Your task to perform on an android device: turn on data saver in the chrome app Image 0: 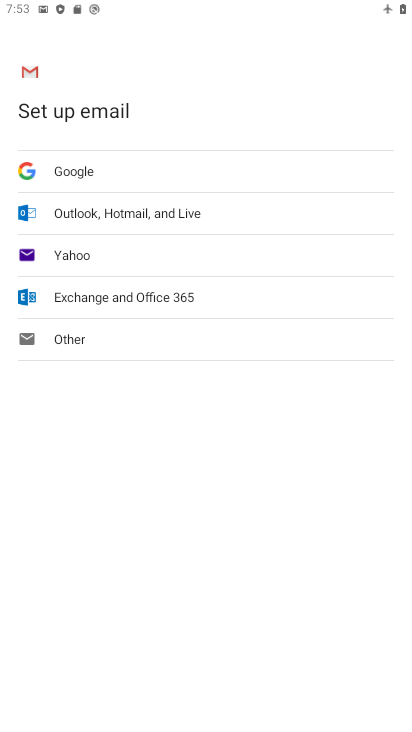
Step 0: press home button
Your task to perform on an android device: turn on data saver in the chrome app Image 1: 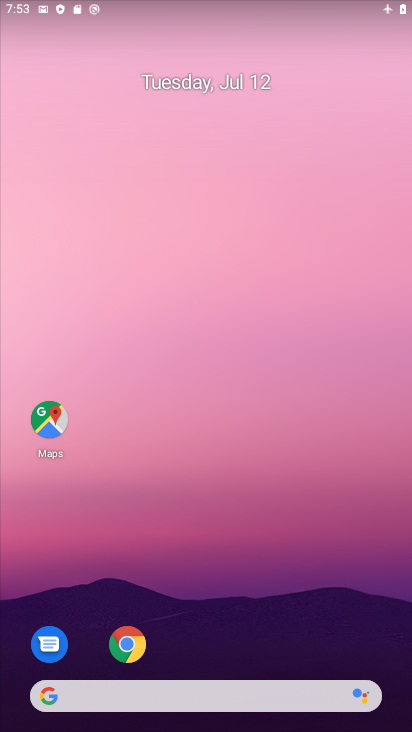
Step 1: click (119, 634)
Your task to perform on an android device: turn on data saver in the chrome app Image 2: 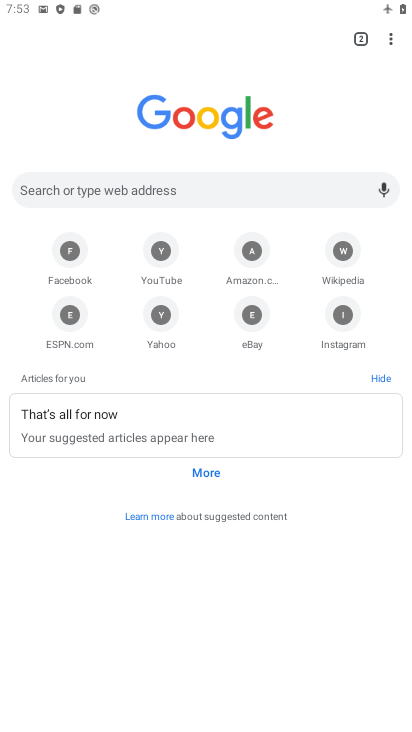
Step 2: click (395, 37)
Your task to perform on an android device: turn on data saver in the chrome app Image 3: 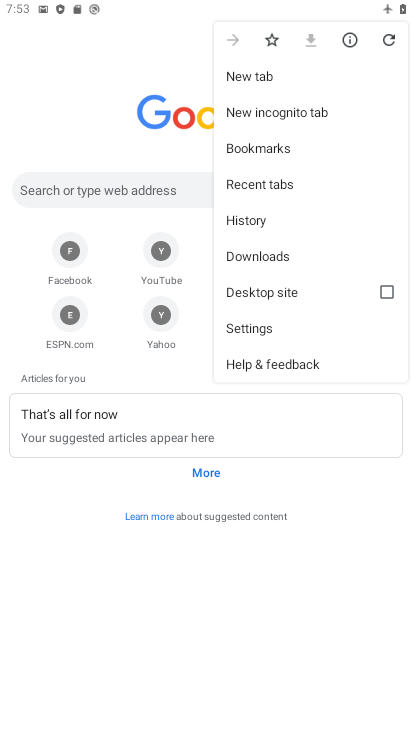
Step 3: click (272, 322)
Your task to perform on an android device: turn on data saver in the chrome app Image 4: 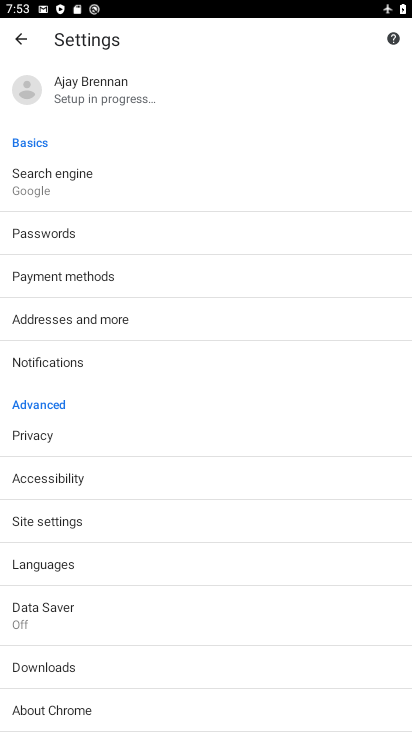
Step 4: click (81, 620)
Your task to perform on an android device: turn on data saver in the chrome app Image 5: 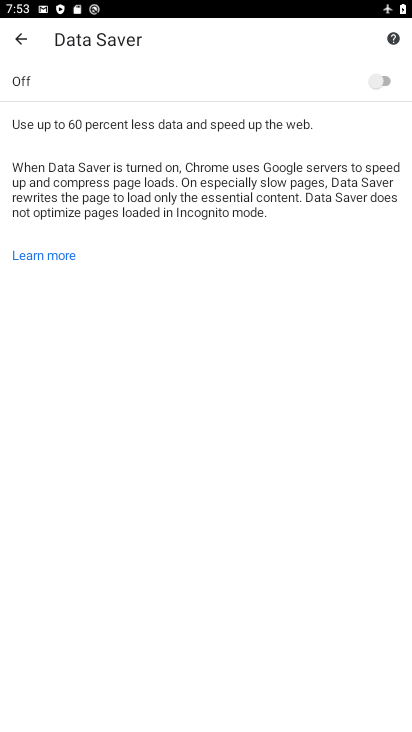
Step 5: click (384, 71)
Your task to perform on an android device: turn on data saver in the chrome app Image 6: 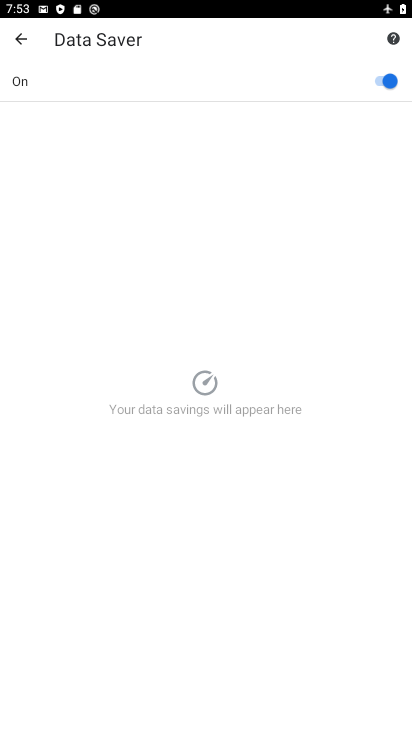
Step 6: task complete